Your task to perform on an android device: Open battery settings Image 0: 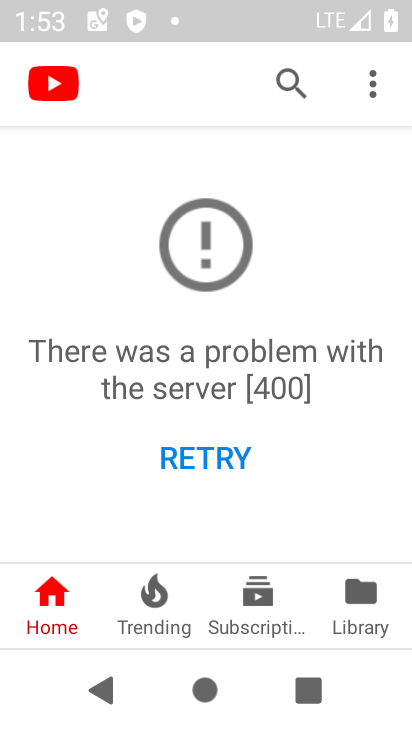
Step 0: press home button
Your task to perform on an android device: Open battery settings Image 1: 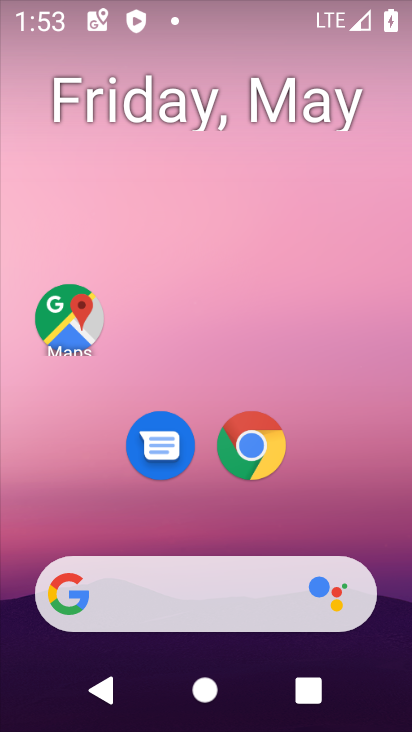
Step 1: drag from (214, 527) to (235, 2)
Your task to perform on an android device: Open battery settings Image 2: 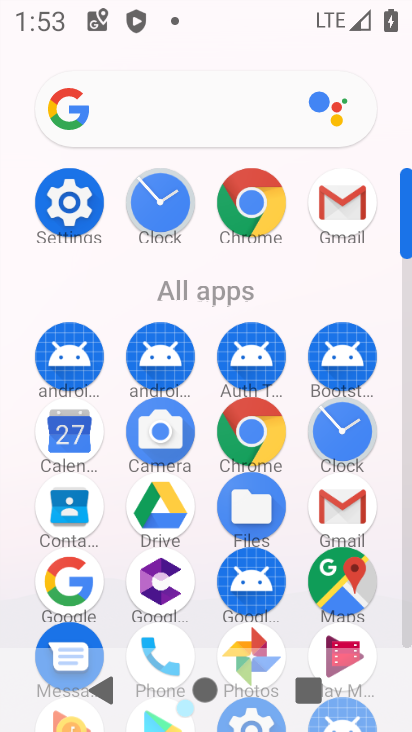
Step 2: click (66, 193)
Your task to perform on an android device: Open battery settings Image 3: 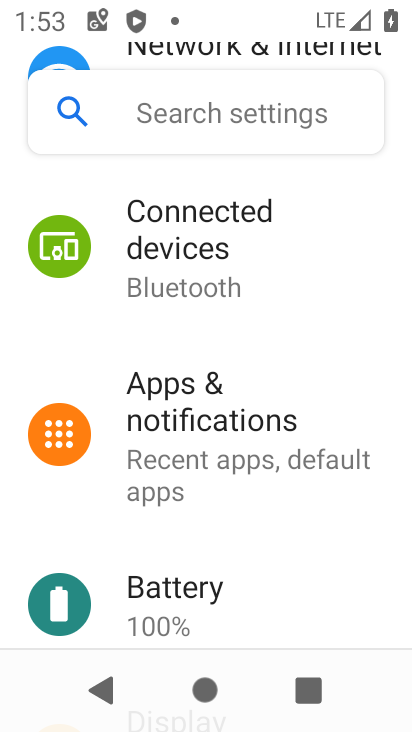
Step 3: click (236, 604)
Your task to perform on an android device: Open battery settings Image 4: 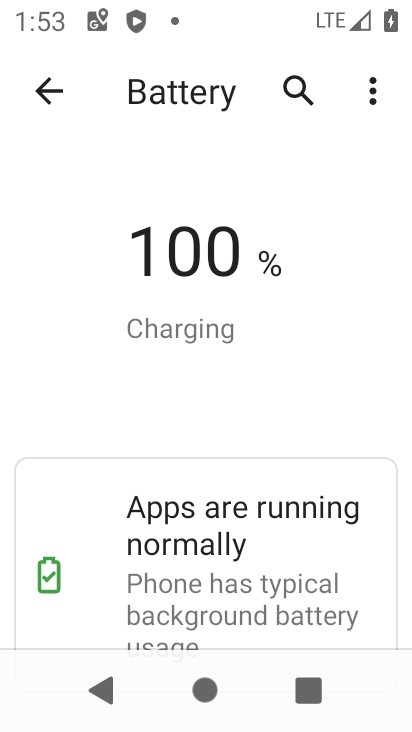
Step 4: task complete